Your task to perform on an android device: choose inbox layout in the gmail app Image 0: 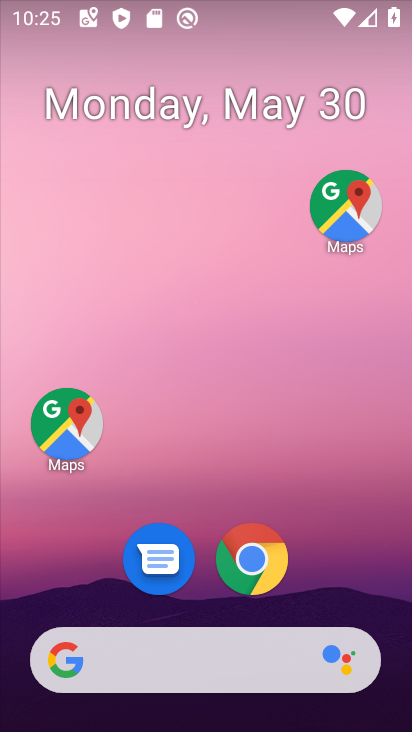
Step 0: drag from (344, 550) to (284, 95)
Your task to perform on an android device: choose inbox layout in the gmail app Image 1: 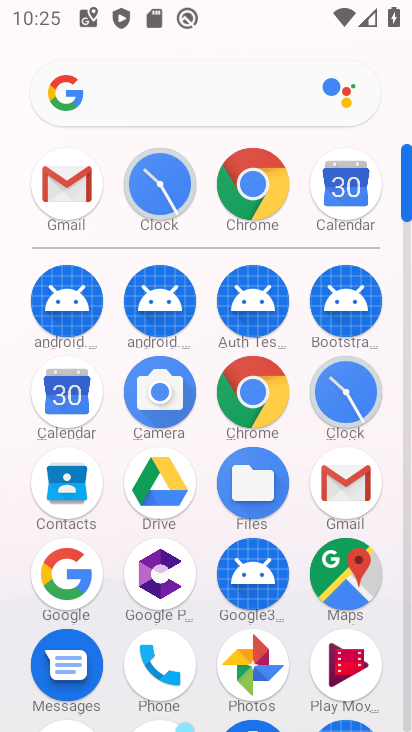
Step 1: click (78, 188)
Your task to perform on an android device: choose inbox layout in the gmail app Image 2: 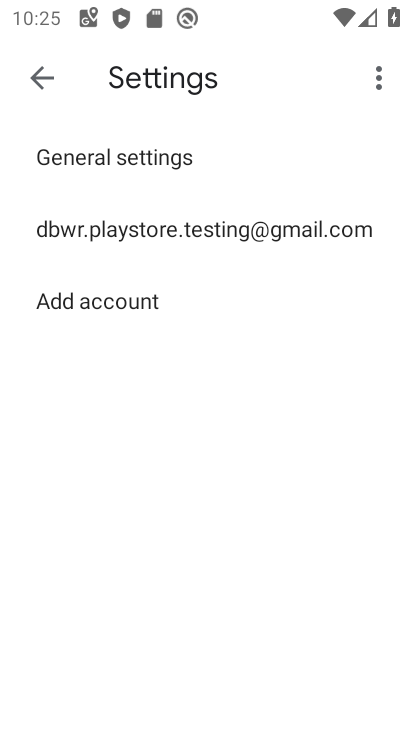
Step 2: click (117, 227)
Your task to perform on an android device: choose inbox layout in the gmail app Image 3: 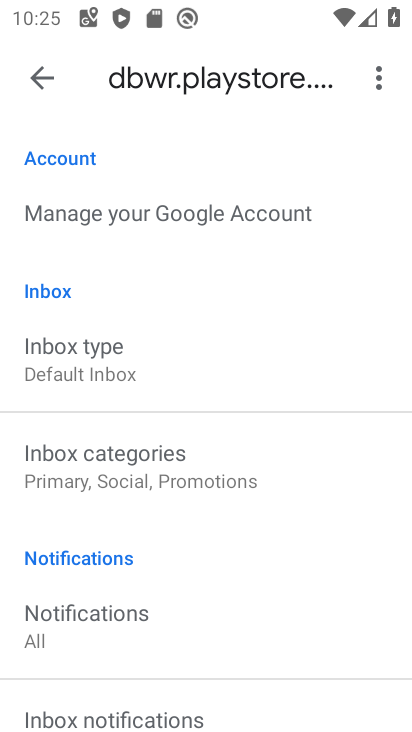
Step 3: click (66, 364)
Your task to perform on an android device: choose inbox layout in the gmail app Image 4: 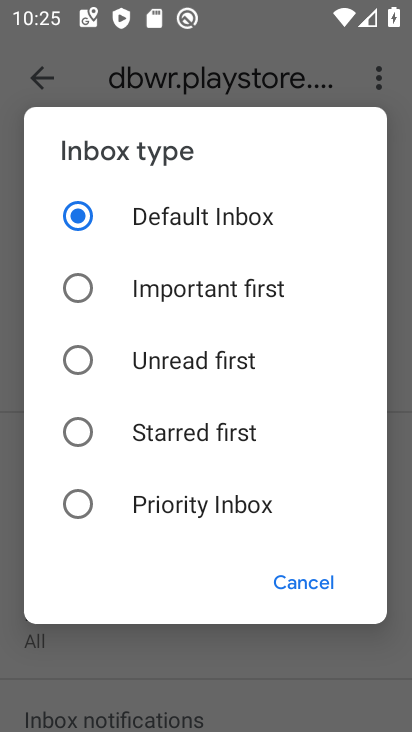
Step 4: task complete